Your task to perform on an android device: turn on showing notifications on the lock screen Image 0: 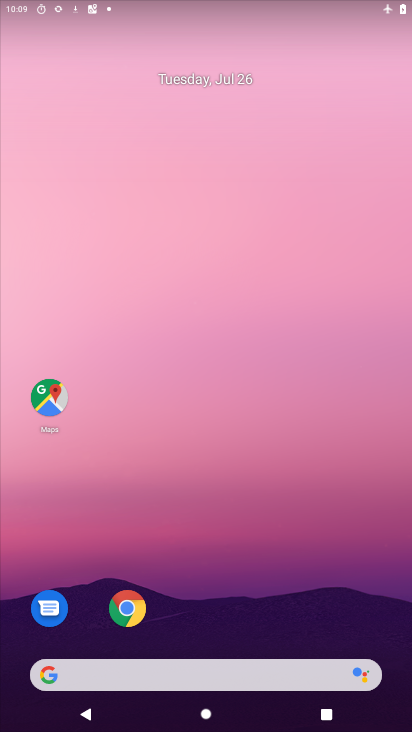
Step 0: drag from (250, 588) to (250, 33)
Your task to perform on an android device: turn on showing notifications on the lock screen Image 1: 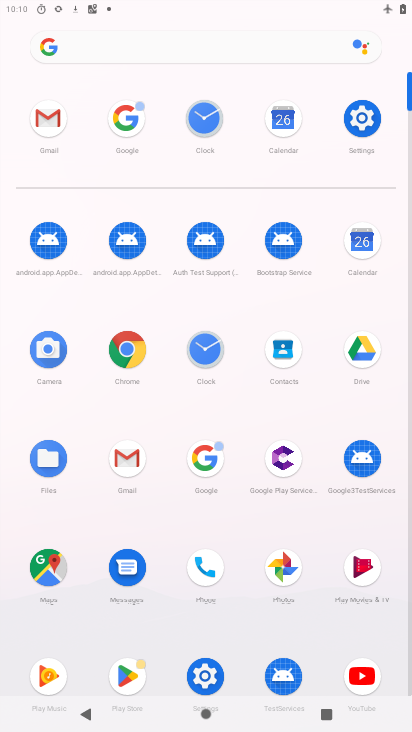
Step 1: click (353, 146)
Your task to perform on an android device: turn on showing notifications on the lock screen Image 2: 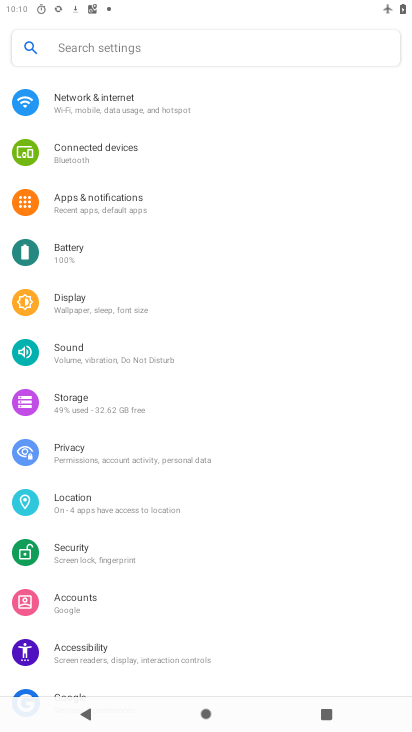
Step 2: click (159, 213)
Your task to perform on an android device: turn on showing notifications on the lock screen Image 3: 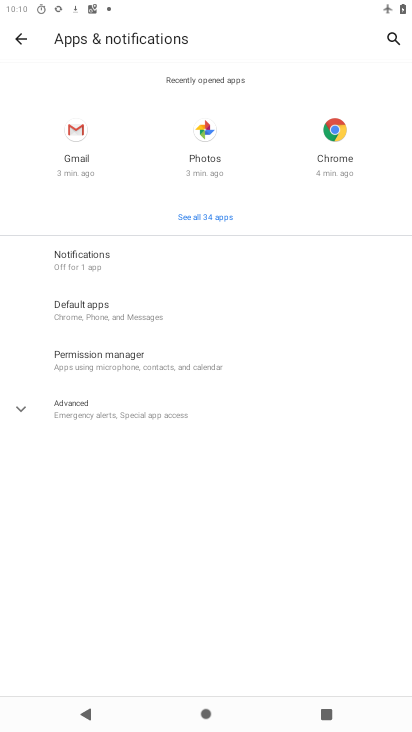
Step 3: click (102, 258)
Your task to perform on an android device: turn on showing notifications on the lock screen Image 4: 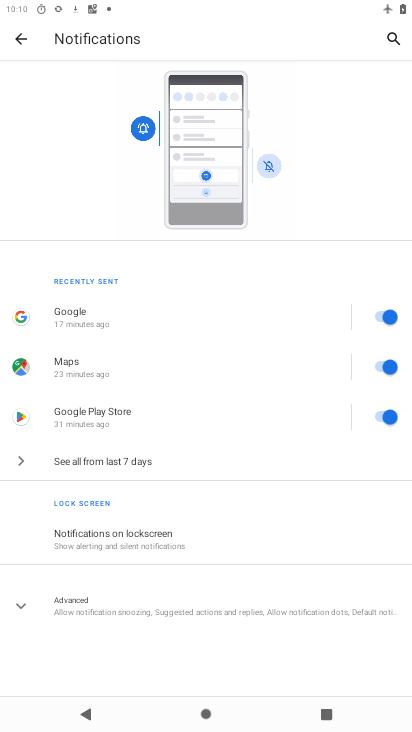
Step 4: click (200, 528)
Your task to perform on an android device: turn on showing notifications on the lock screen Image 5: 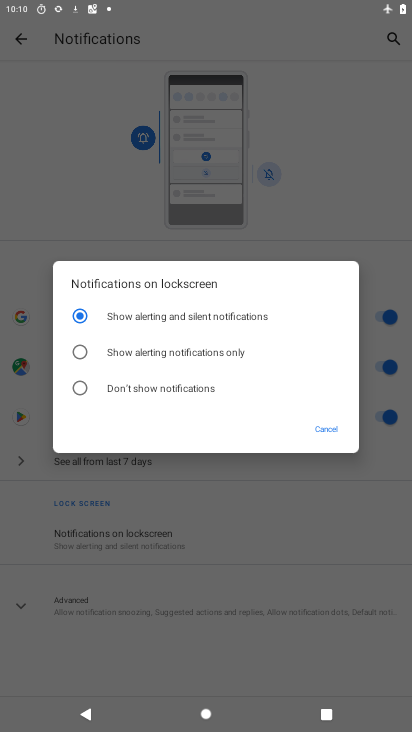
Step 5: task complete